Your task to perform on an android device: turn pop-ups off in chrome Image 0: 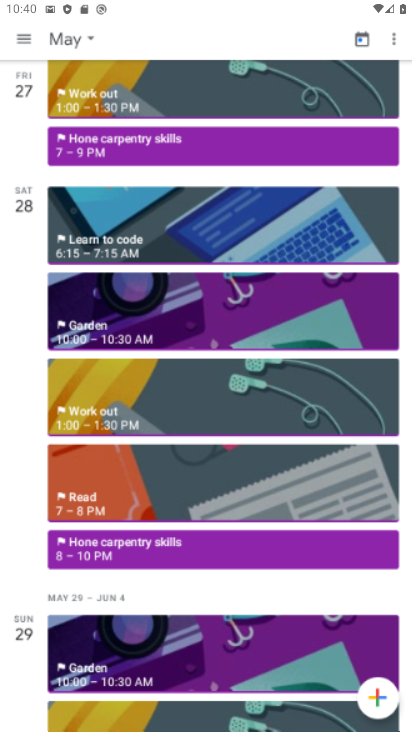
Step 0: press home button
Your task to perform on an android device: turn pop-ups off in chrome Image 1: 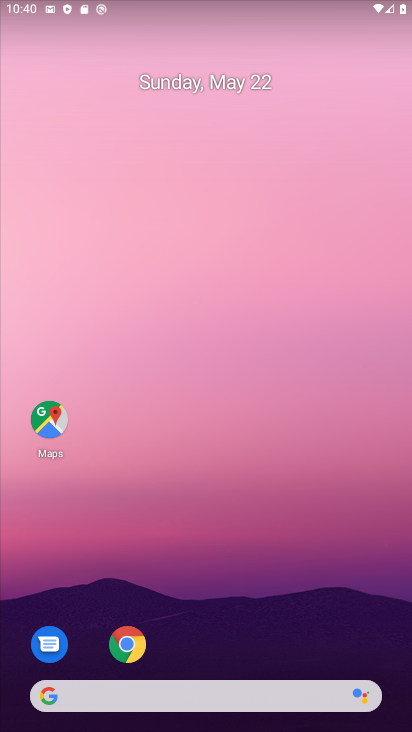
Step 1: click (126, 638)
Your task to perform on an android device: turn pop-ups off in chrome Image 2: 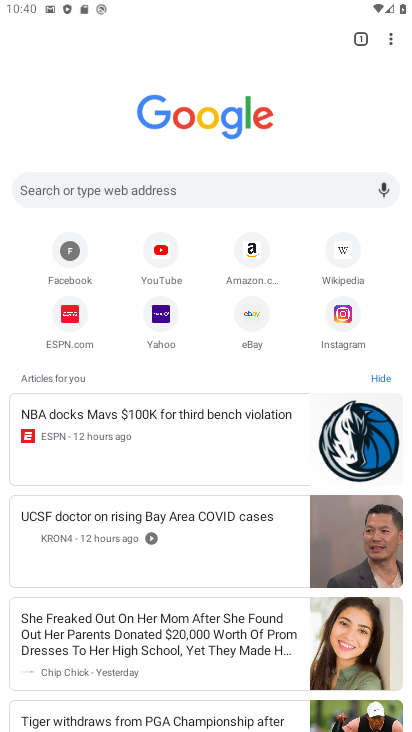
Step 2: click (389, 36)
Your task to perform on an android device: turn pop-ups off in chrome Image 3: 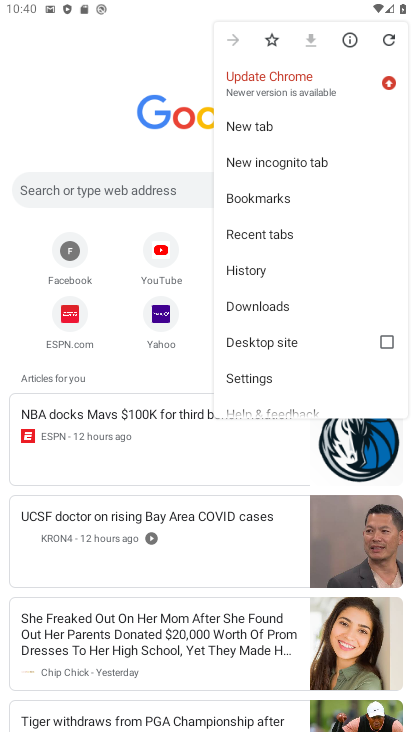
Step 3: click (279, 377)
Your task to perform on an android device: turn pop-ups off in chrome Image 4: 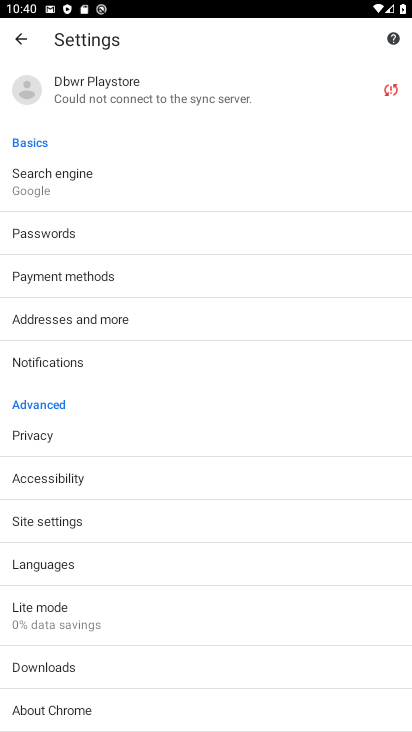
Step 4: drag from (165, 659) to (213, 145)
Your task to perform on an android device: turn pop-ups off in chrome Image 5: 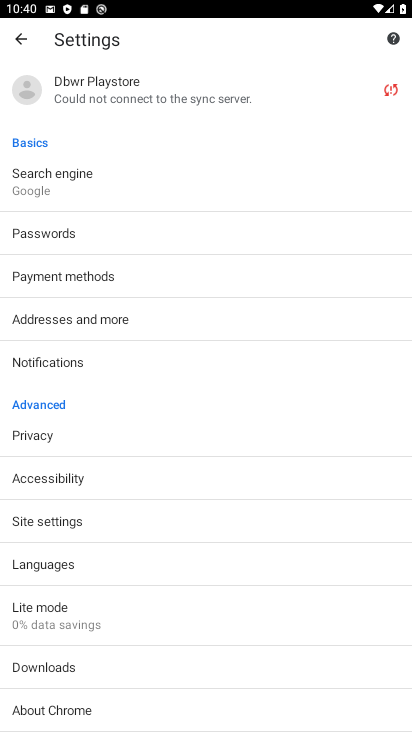
Step 5: click (96, 523)
Your task to perform on an android device: turn pop-ups off in chrome Image 6: 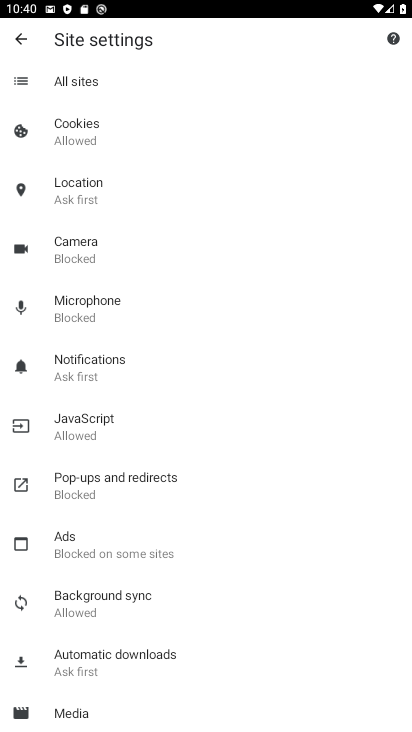
Step 6: click (135, 490)
Your task to perform on an android device: turn pop-ups off in chrome Image 7: 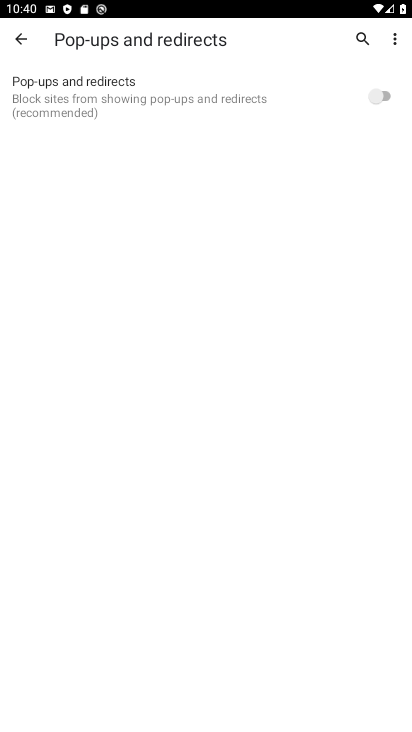
Step 7: task complete